Your task to perform on an android device: Open display settings Image 0: 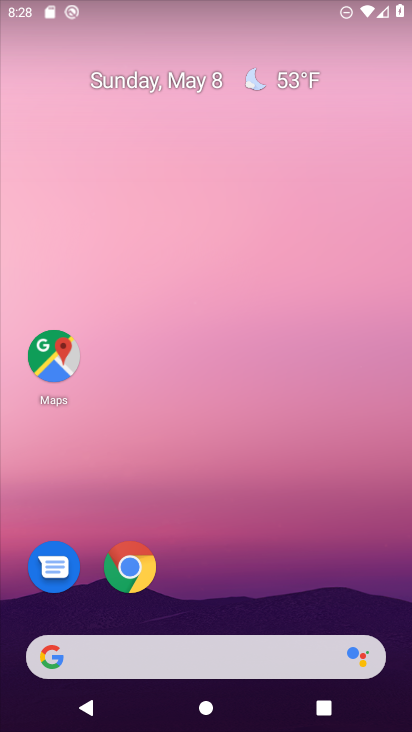
Step 0: drag from (337, 410) to (394, 74)
Your task to perform on an android device: Open display settings Image 1: 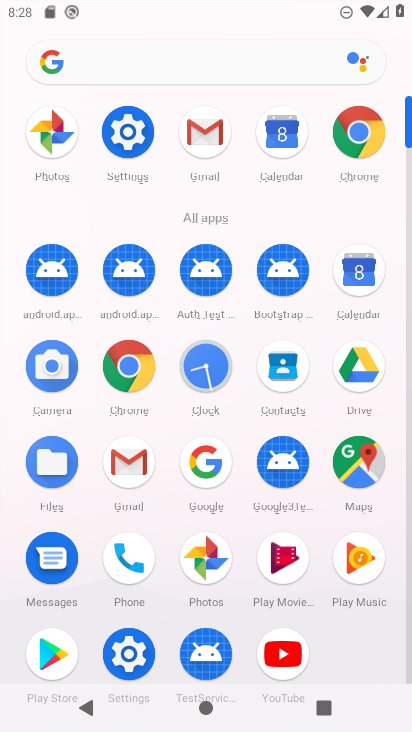
Step 1: click (136, 144)
Your task to perform on an android device: Open display settings Image 2: 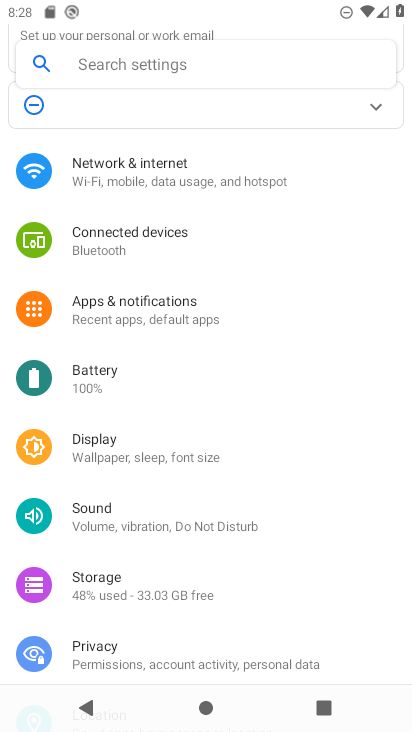
Step 2: click (108, 451)
Your task to perform on an android device: Open display settings Image 3: 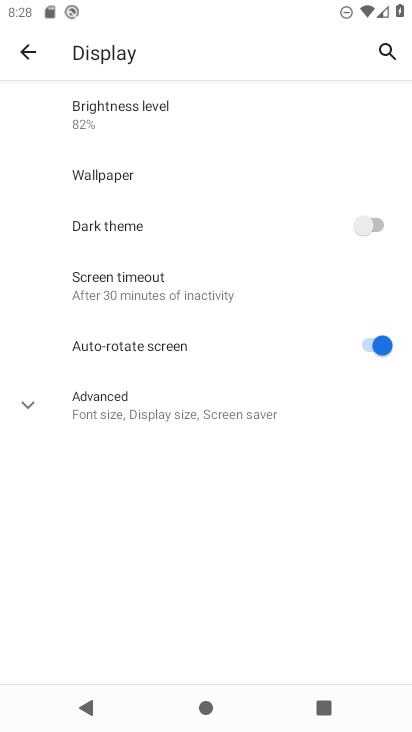
Step 3: task complete